Your task to perform on an android device: open a new tab in the chrome app Image 0: 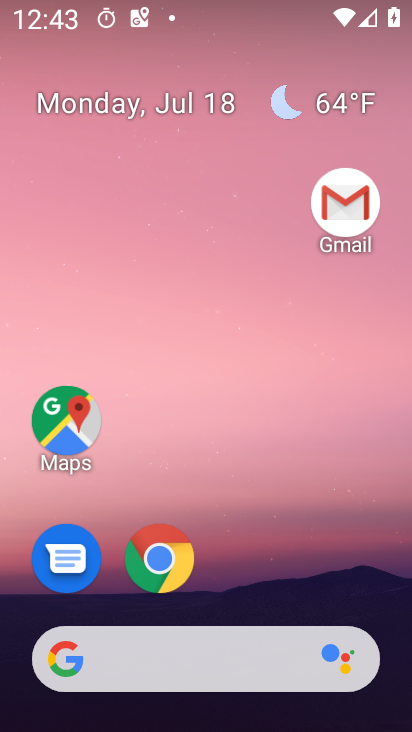
Step 0: drag from (311, 535) to (313, 154)
Your task to perform on an android device: open a new tab in the chrome app Image 1: 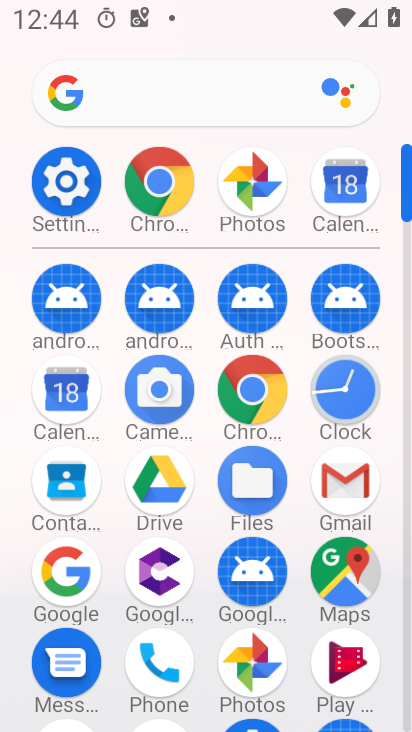
Step 1: click (263, 385)
Your task to perform on an android device: open a new tab in the chrome app Image 2: 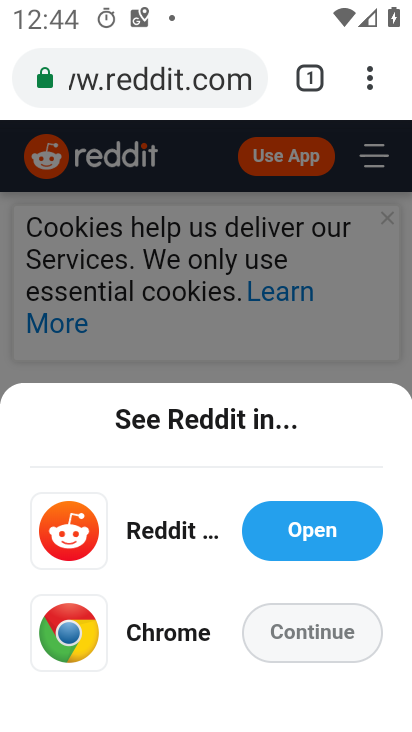
Step 2: click (370, 89)
Your task to perform on an android device: open a new tab in the chrome app Image 3: 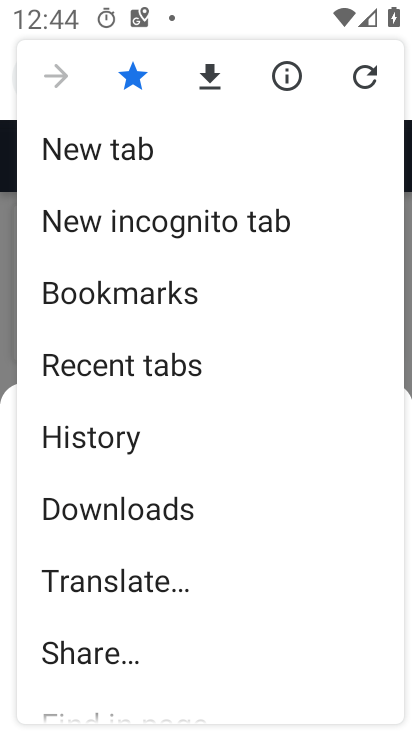
Step 3: click (163, 172)
Your task to perform on an android device: open a new tab in the chrome app Image 4: 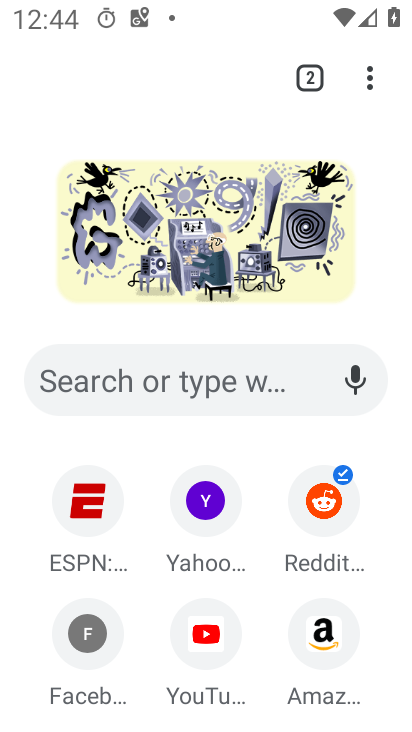
Step 4: task complete